Your task to perform on an android device: Open Google Maps and go to "Timeline" Image 0: 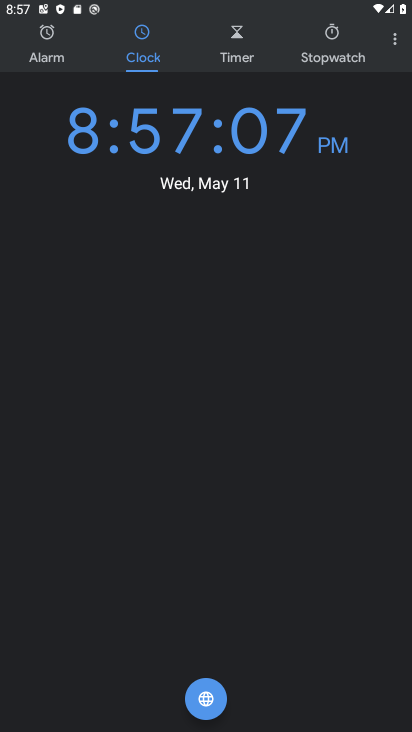
Step 0: press home button
Your task to perform on an android device: Open Google Maps and go to "Timeline" Image 1: 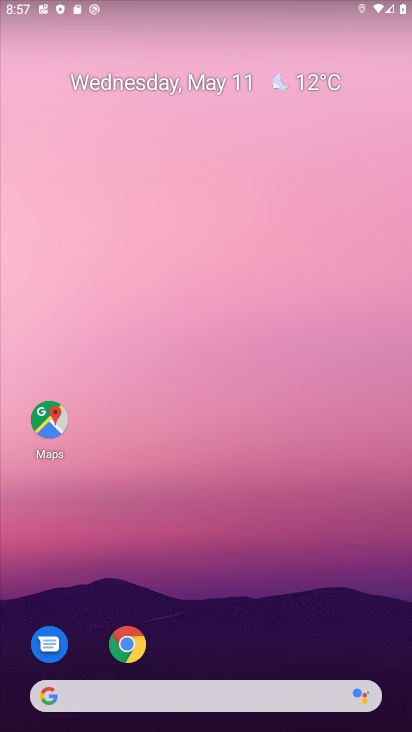
Step 1: click (55, 416)
Your task to perform on an android device: Open Google Maps and go to "Timeline" Image 2: 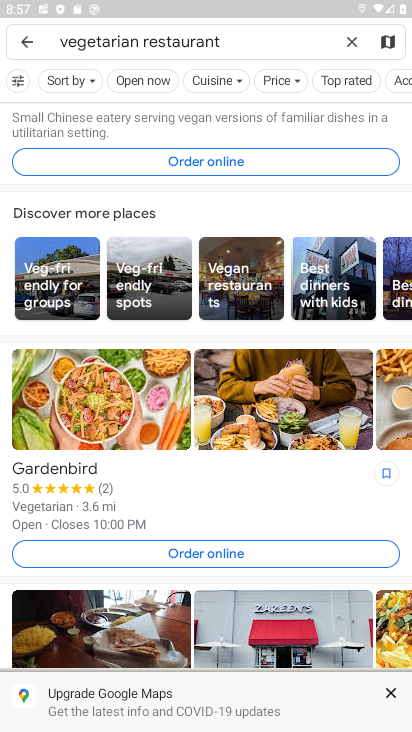
Step 2: press back button
Your task to perform on an android device: Open Google Maps and go to "Timeline" Image 3: 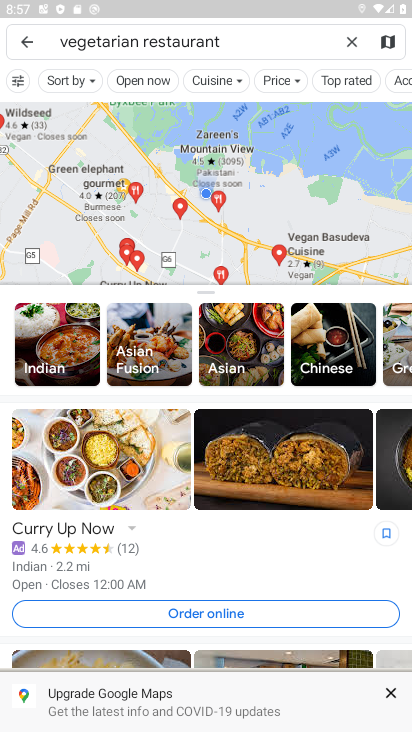
Step 3: click (39, 37)
Your task to perform on an android device: Open Google Maps and go to "Timeline" Image 4: 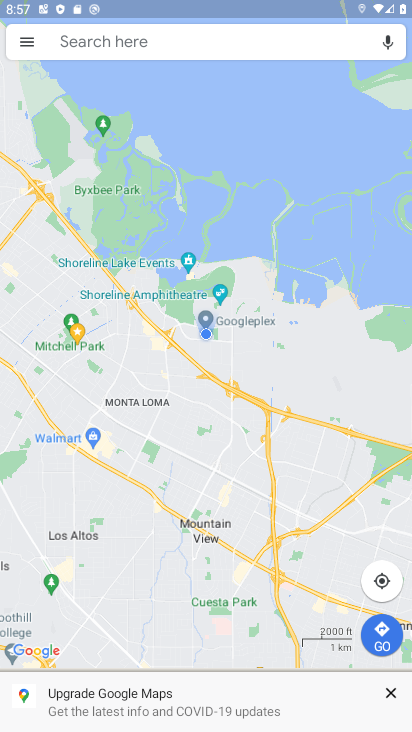
Step 4: click (19, 40)
Your task to perform on an android device: Open Google Maps and go to "Timeline" Image 5: 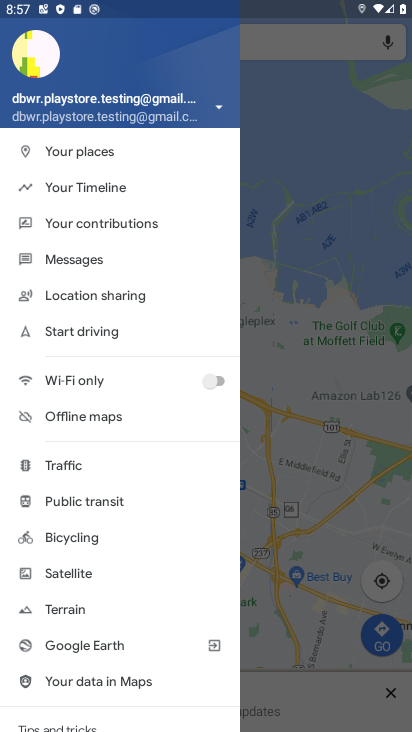
Step 5: click (73, 185)
Your task to perform on an android device: Open Google Maps and go to "Timeline" Image 6: 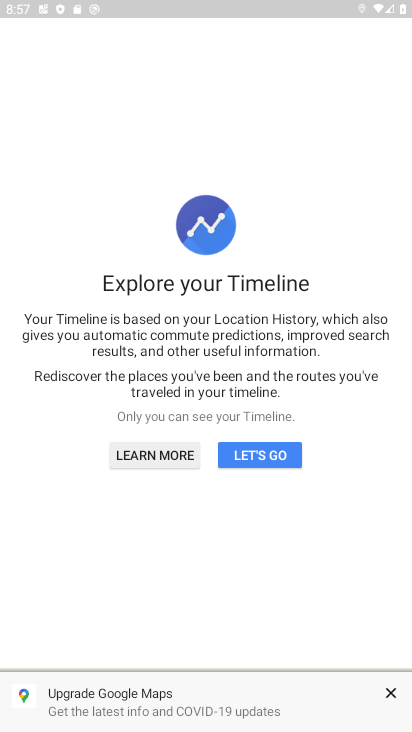
Step 6: task complete